Your task to perform on an android device: open app "Firefox Browser" Image 0: 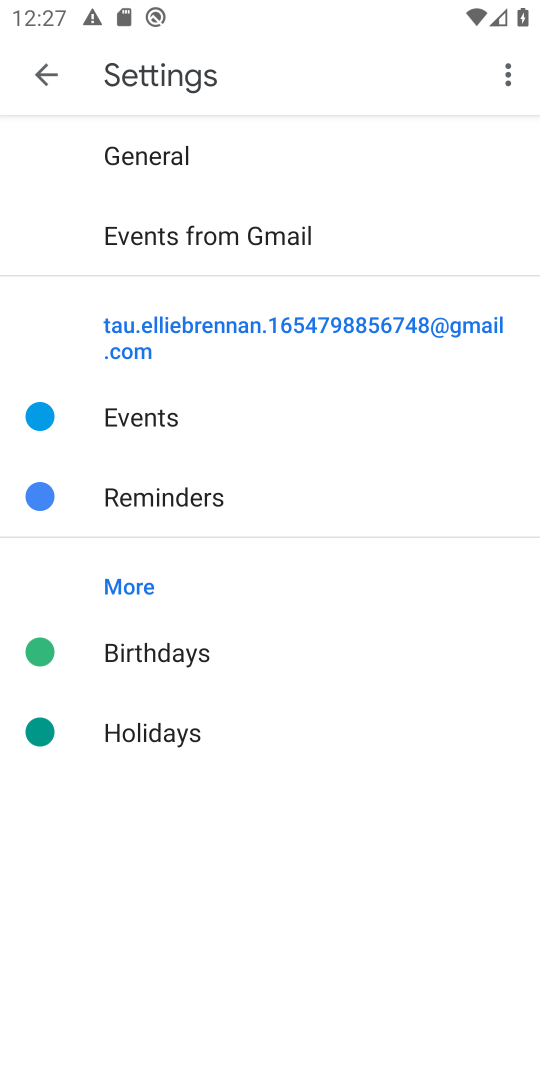
Step 0: click (61, 81)
Your task to perform on an android device: open app "Firefox Browser" Image 1: 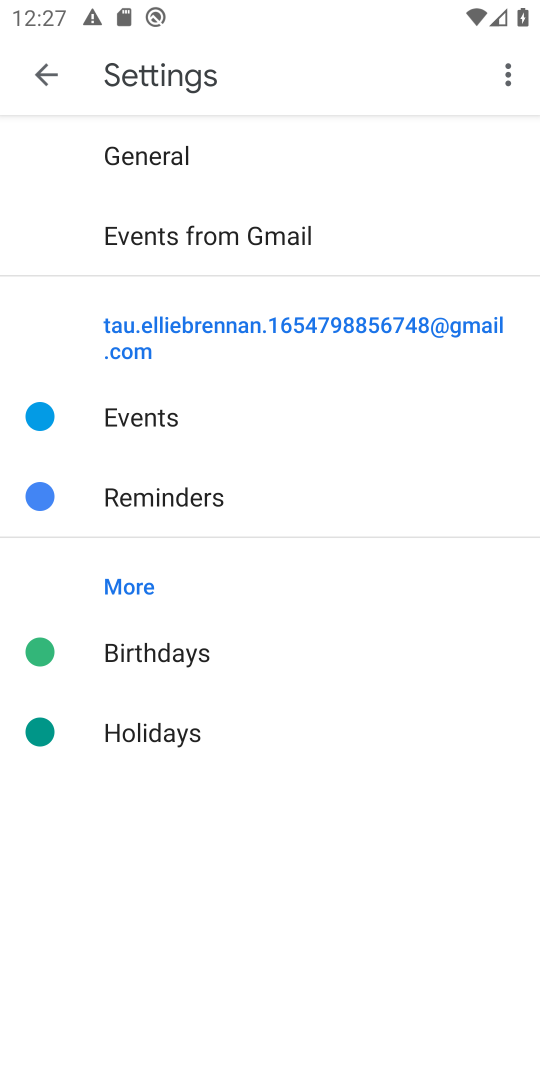
Step 1: click (50, 81)
Your task to perform on an android device: open app "Firefox Browser" Image 2: 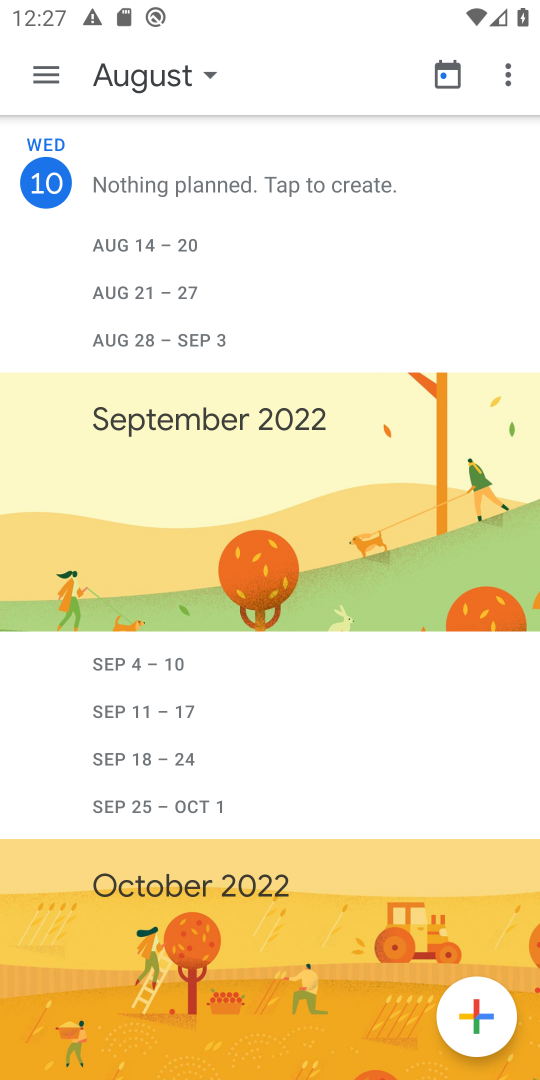
Step 2: press home button
Your task to perform on an android device: open app "Firefox Browser" Image 3: 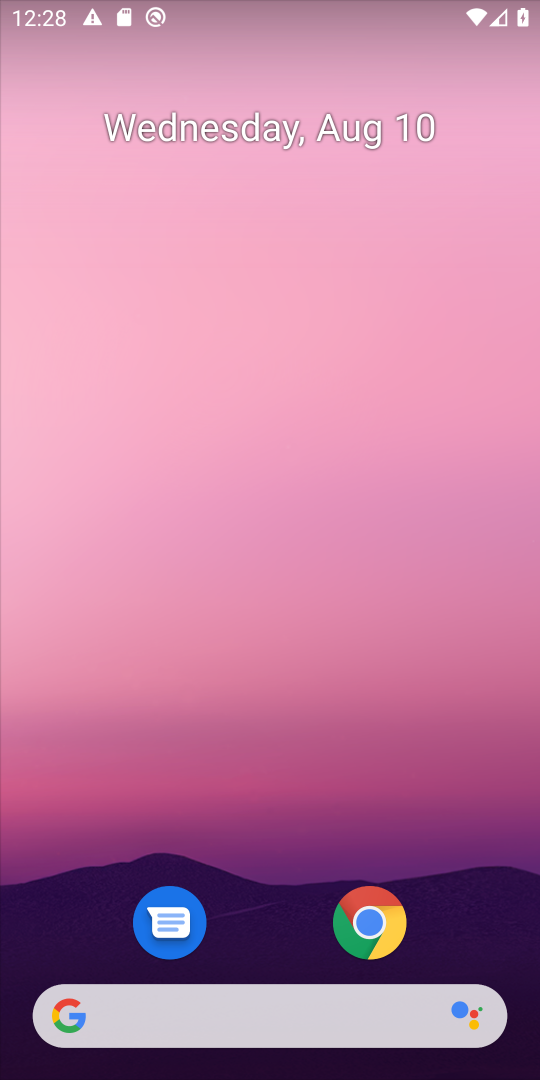
Step 3: drag from (219, 251) to (217, 150)
Your task to perform on an android device: open app "Firefox Browser" Image 4: 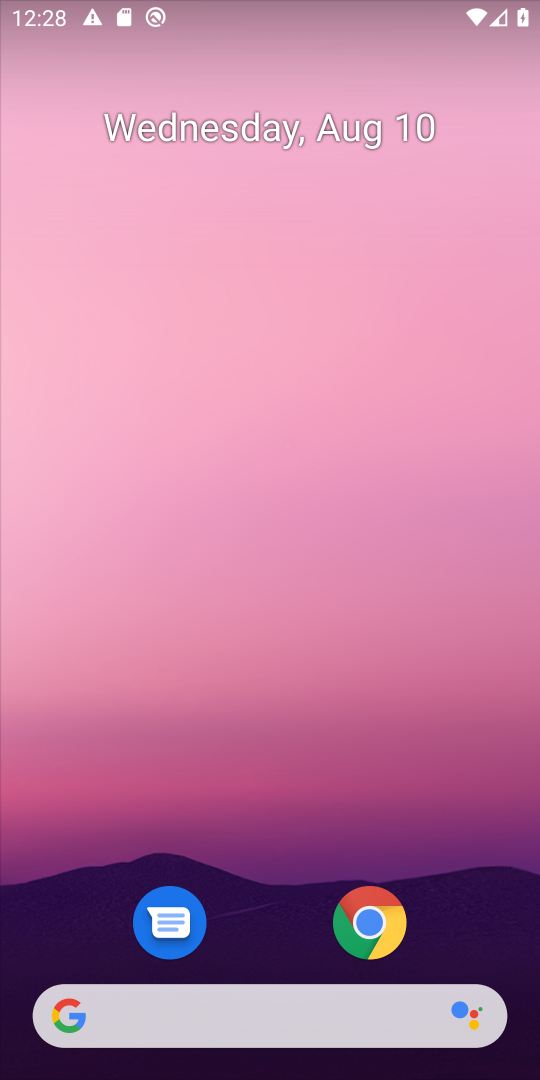
Step 4: drag from (178, 523) to (127, 172)
Your task to perform on an android device: open app "Firefox Browser" Image 5: 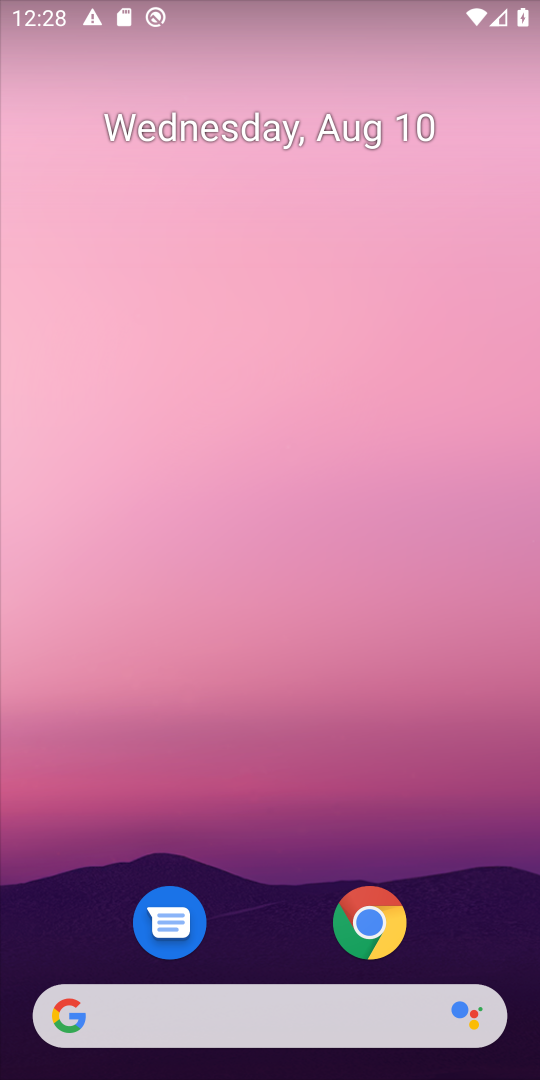
Step 5: drag from (268, 397) to (274, 150)
Your task to perform on an android device: open app "Firefox Browser" Image 6: 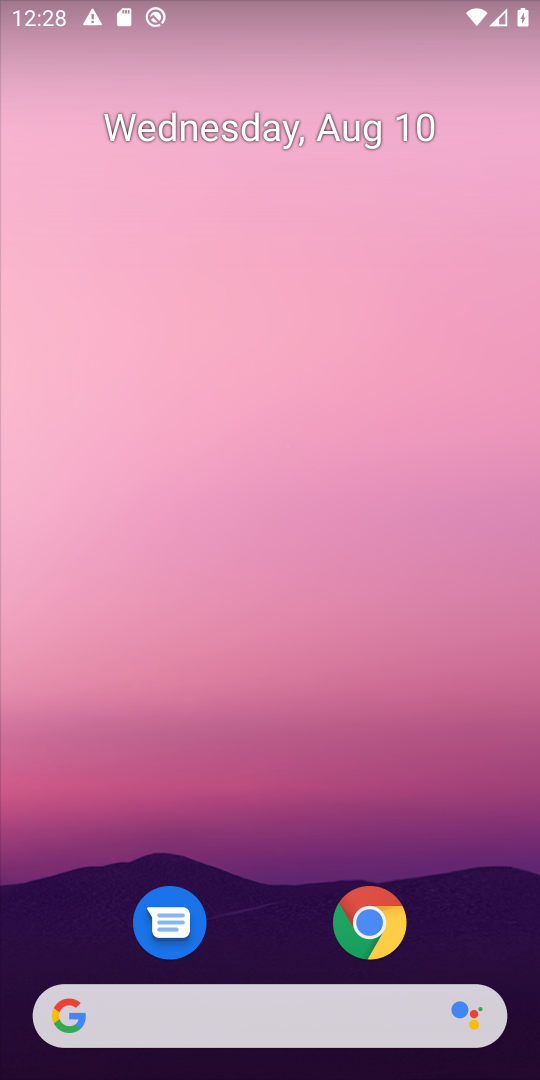
Step 6: drag from (259, 911) to (232, 238)
Your task to perform on an android device: open app "Firefox Browser" Image 7: 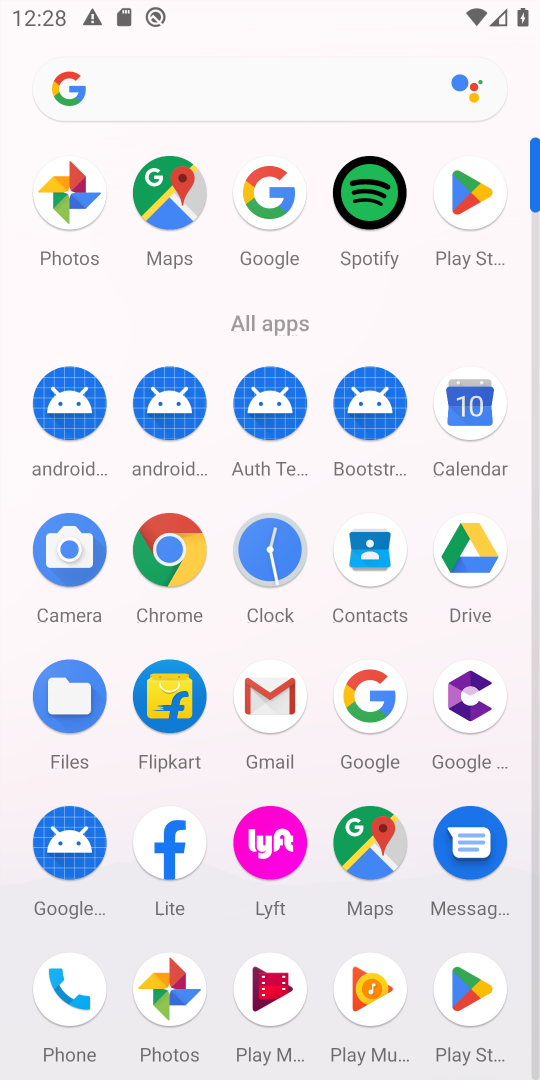
Step 7: click (457, 196)
Your task to perform on an android device: open app "Firefox Browser" Image 8: 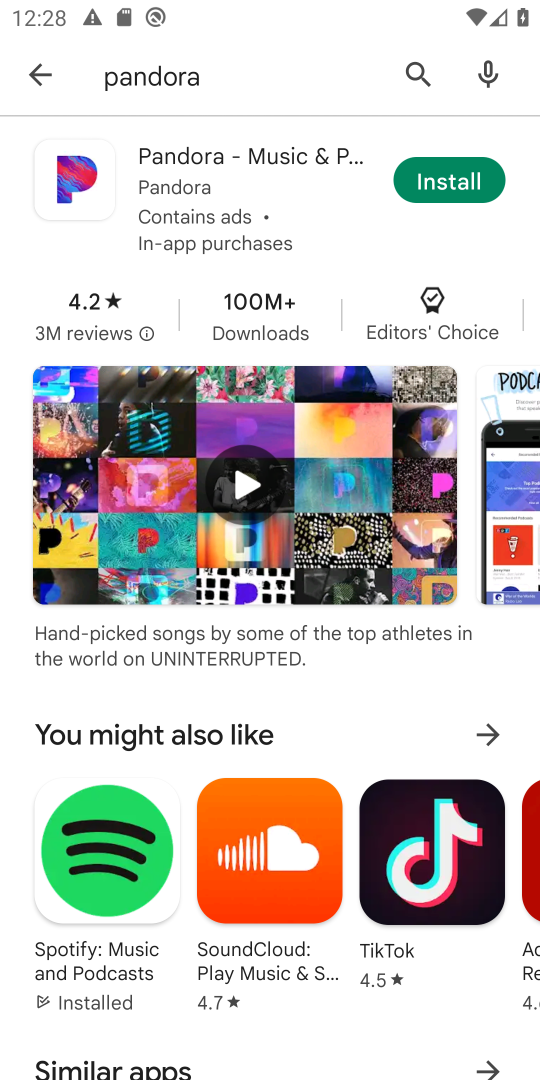
Step 8: click (31, 74)
Your task to perform on an android device: open app "Firefox Browser" Image 9: 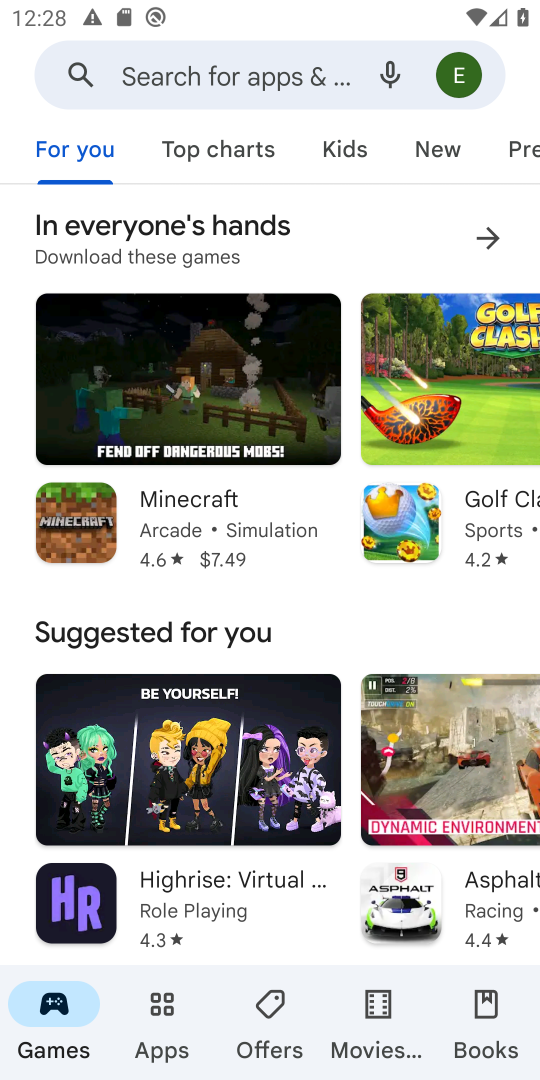
Step 9: click (295, 68)
Your task to perform on an android device: open app "Firefox Browser" Image 10: 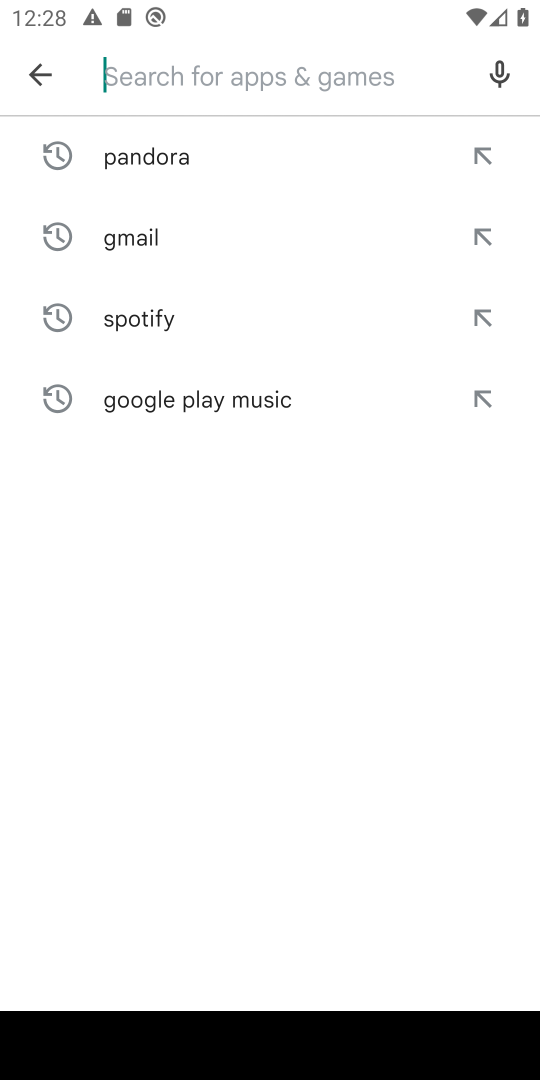
Step 10: type "Firefox Browser"
Your task to perform on an android device: open app "Firefox Browser" Image 11: 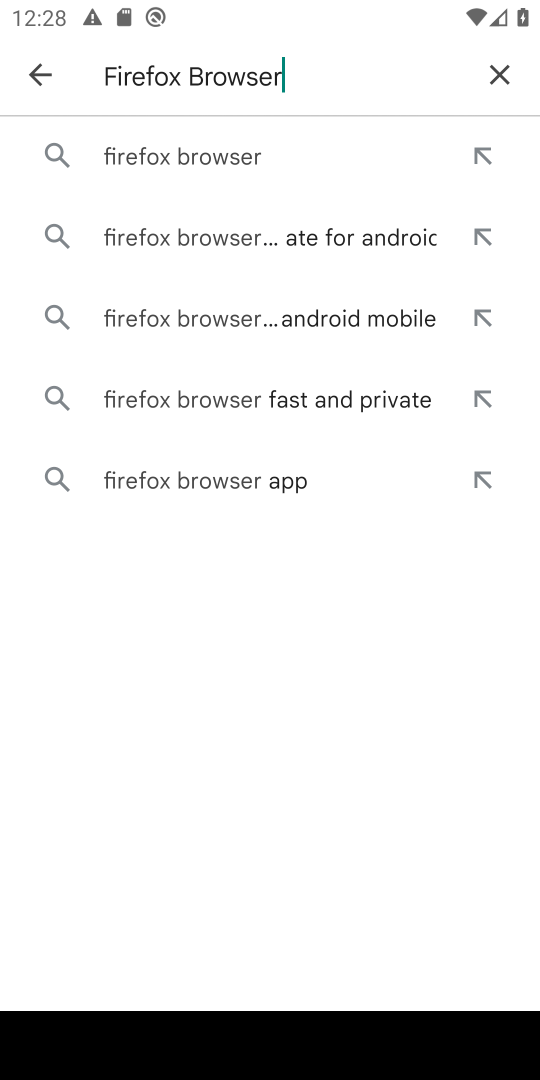
Step 11: click (153, 153)
Your task to perform on an android device: open app "Firefox Browser" Image 12: 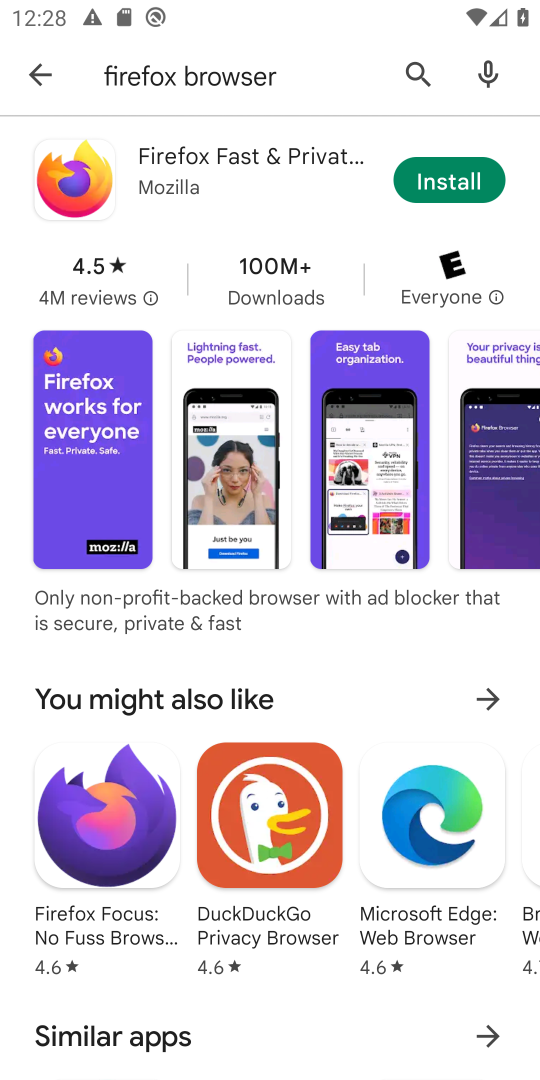
Step 12: click (438, 181)
Your task to perform on an android device: open app "Firefox Browser" Image 13: 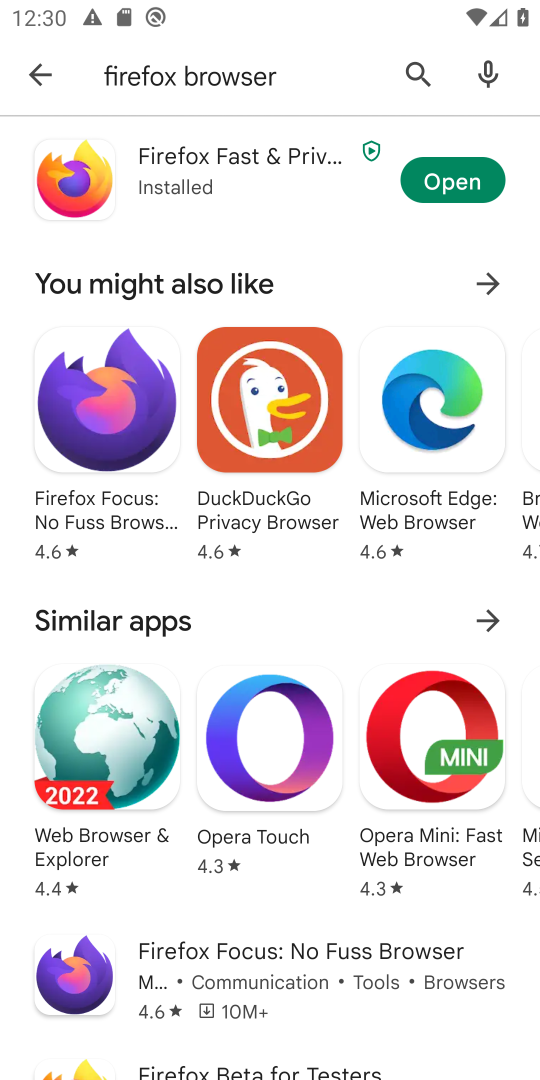
Step 13: click (436, 181)
Your task to perform on an android device: open app "Firefox Browser" Image 14: 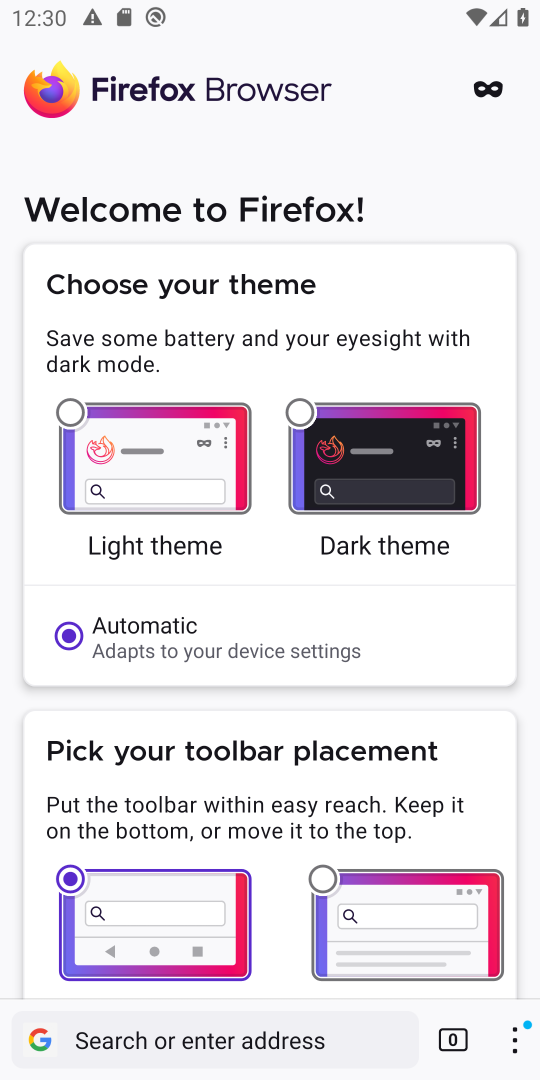
Step 14: task complete